Your task to perform on an android device: see tabs open on other devices in the chrome app Image 0: 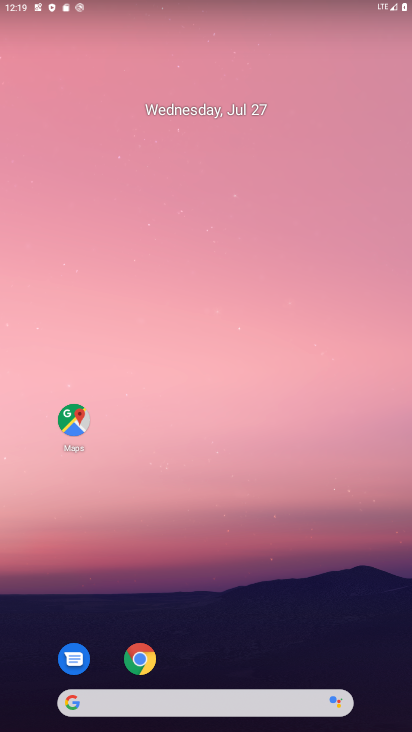
Step 0: click (348, 507)
Your task to perform on an android device: see tabs open on other devices in the chrome app Image 1: 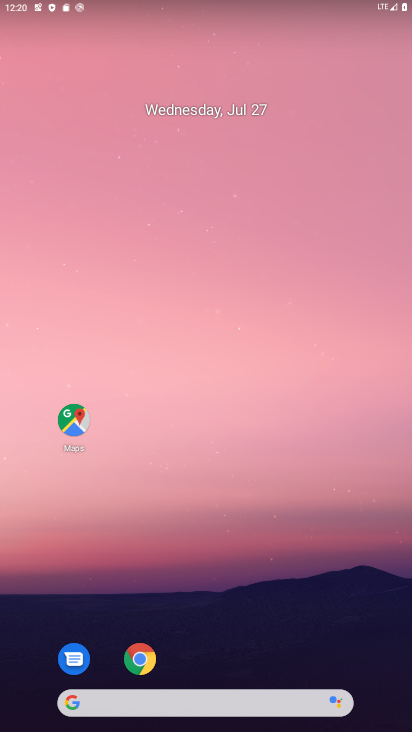
Step 1: drag from (276, 605) to (283, 74)
Your task to perform on an android device: see tabs open on other devices in the chrome app Image 2: 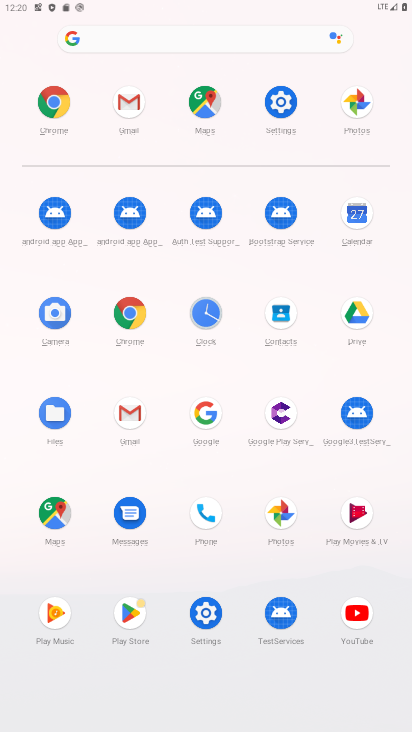
Step 2: click (125, 319)
Your task to perform on an android device: see tabs open on other devices in the chrome app Image 3: 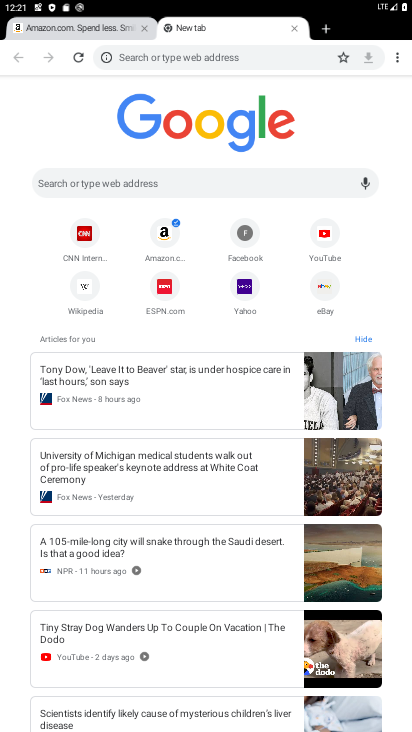
Step 3: click (397, 66)
Your task to perform on an android device: see tabs open on other devices in the chrome app Image 4: 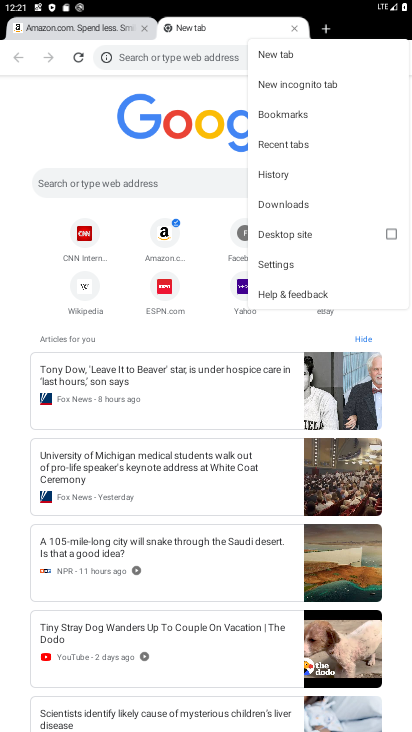
Step 4: click (304, 149)
Your task to perform on an android device: see tabs open on other devices in the chrome app Image 5: 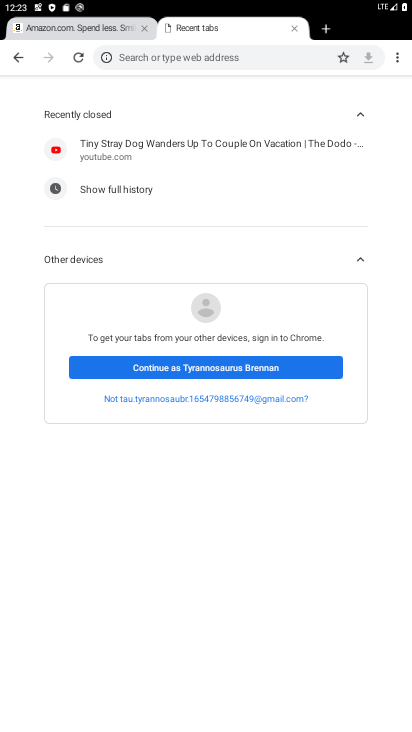
Step 5: click (235, 367)
Your task to perform on an android device: see tabs open on other devices in the chrome app Image 6: 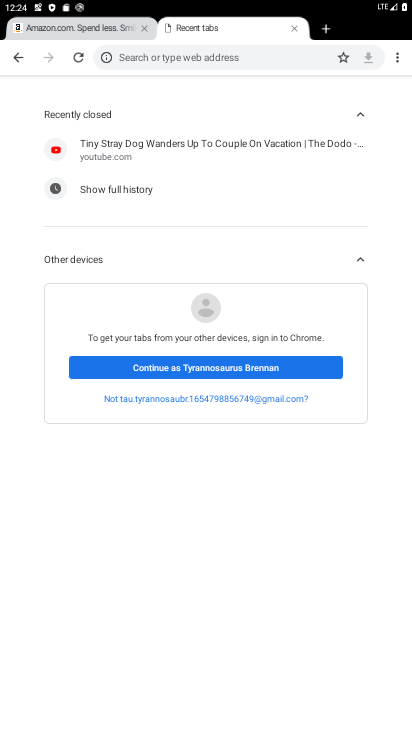
Step 6: click (269, 363)
Your task to perform on an android device: see tabs open on other devices in the chrome app Image 7: 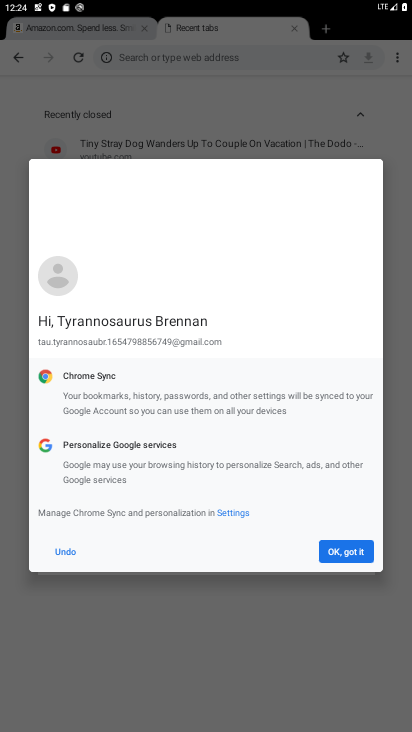
Step 7: click (367, 551)
Your task to perform on an android device: see tabs open on other devices in the chrome app Image 8: 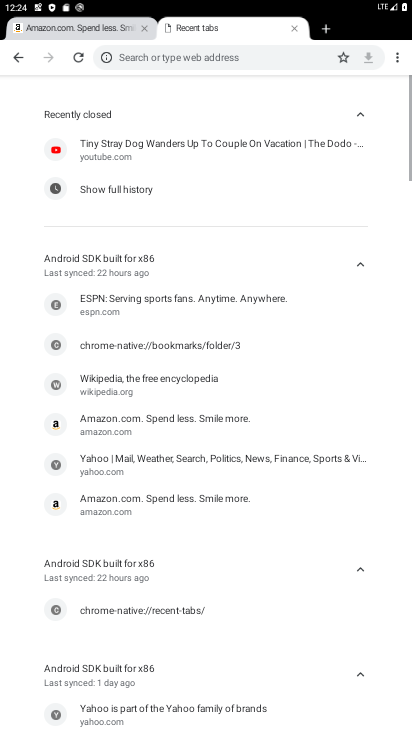
Step 8: task complete